Your task to perform on an android device: open app "Flipkart Online Shopping App" Image 0: 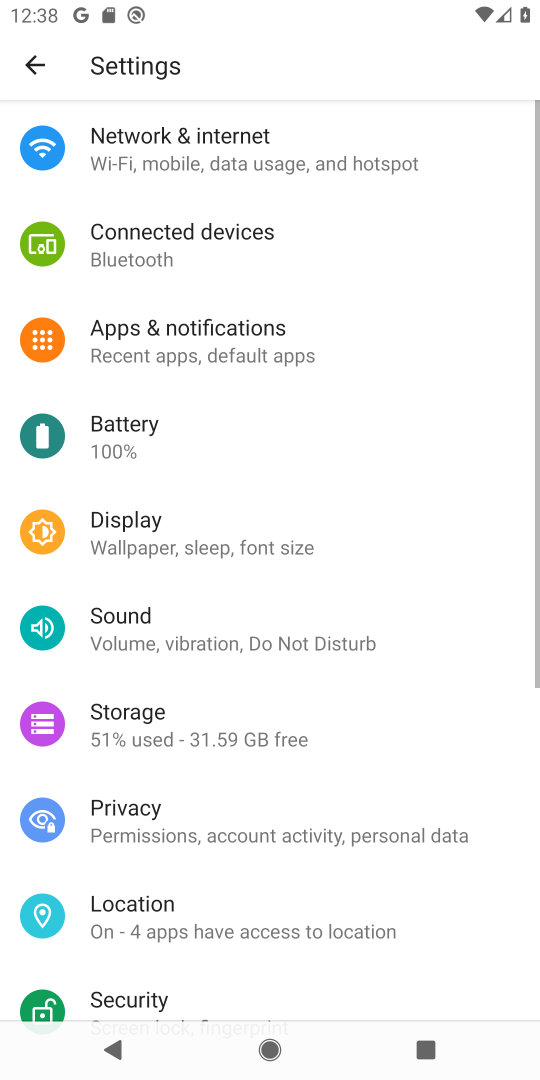
Step 0: press home button
Your task to perform on an android device: open app "Flipkart Online Shopping App" Image 1: 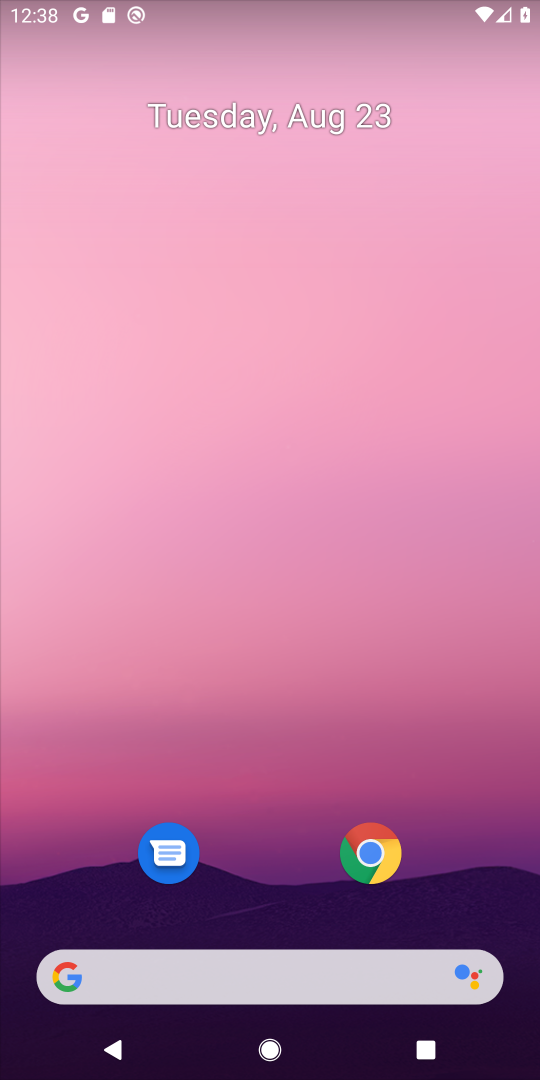
Step 1: drag from (455, 678) to (410, 200)
Your task to perform on an android device: open app "Flipkart Online Shopping App" Image 2: 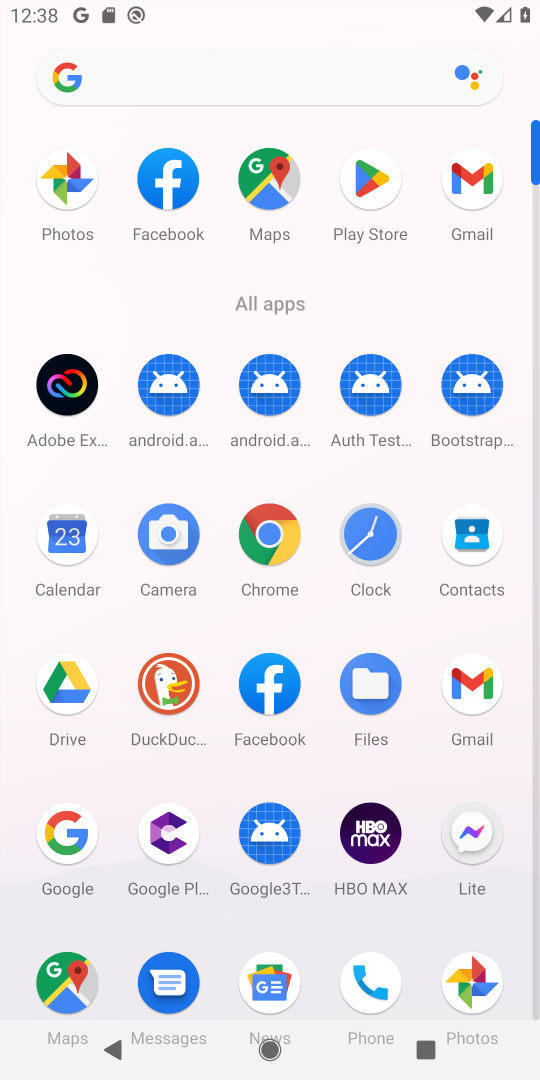
Step 2: drag from (208, 614) to (207, 414)
Your task to perform on an android device: open app "Flipkart Online Shopping App" Image 3: 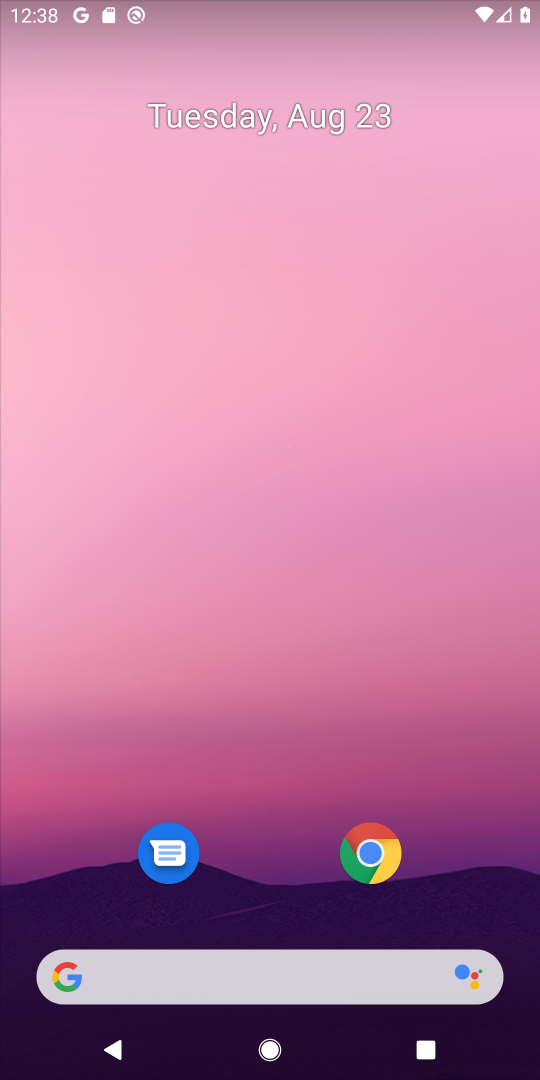
Step 3: drag from (309, 842) to (296, 128)
Your task to perform on an android device: open app "Flipkart Online Shopping App" Image 4: 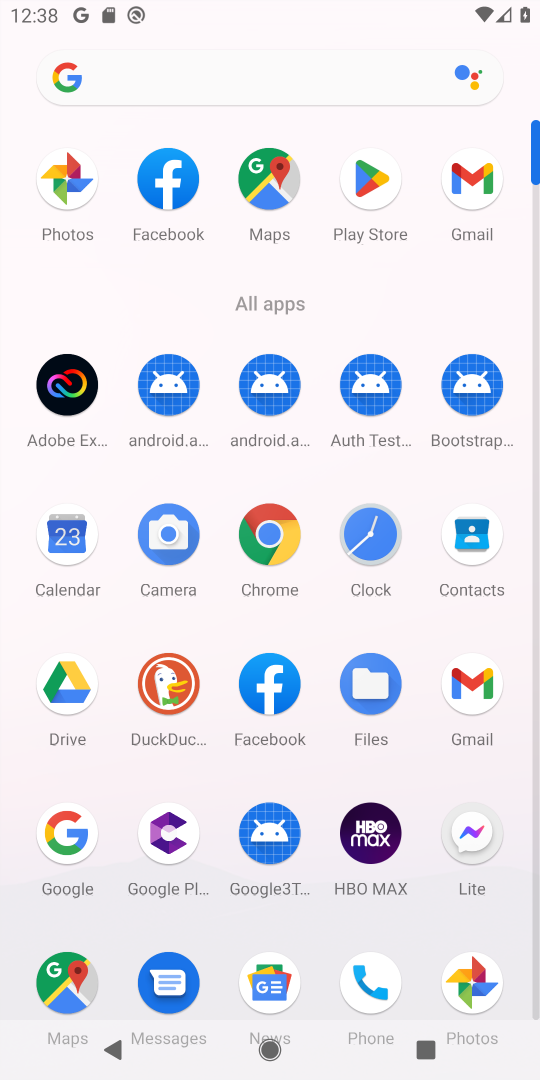
Step 4: drag from (316, 931) to (317, 342)
Your task to perform on an android device: open app "Flipkart Online Shopping App" Image 5: 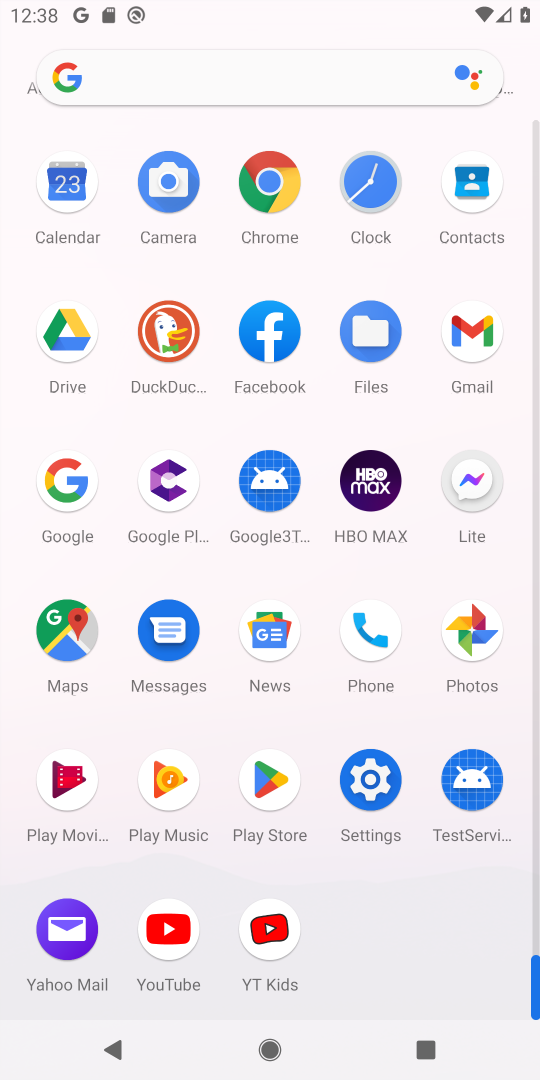
Step 5: click (267, 784)
Your task to perform on an android device: open app "Flipkart Online Shopping App" Image 6: 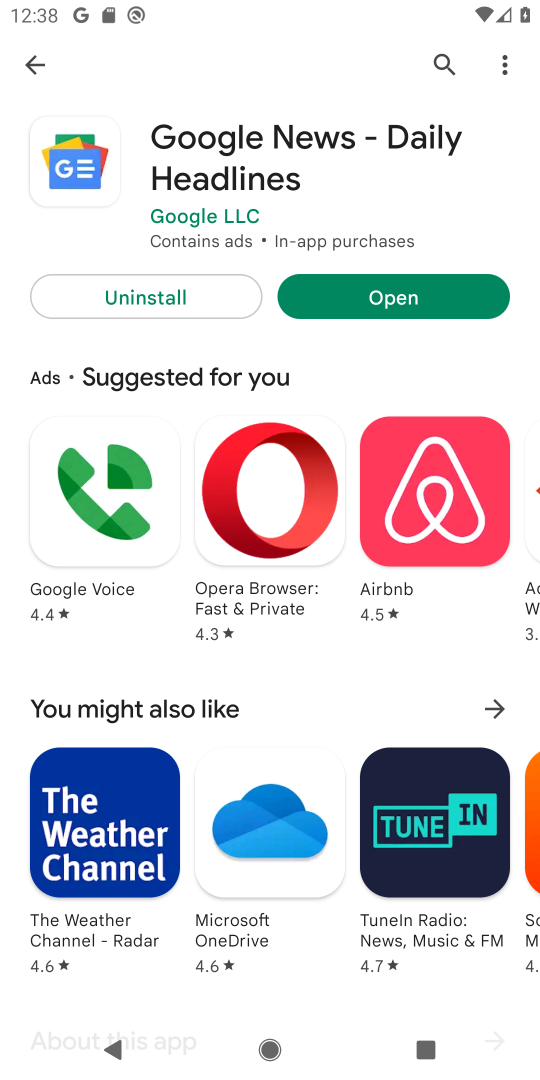
Step 6: click (440, 65)
Your task to perform on an android device: open app "Flipkart Online Shopping App" Image 7: 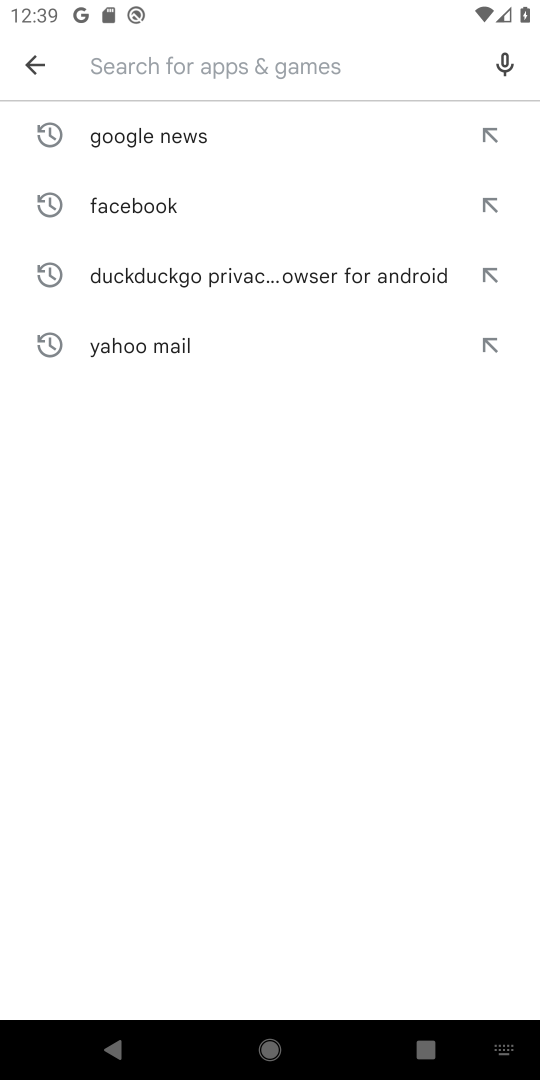
Step 7: type "Flipkart Online Shopping App"
Your task to perform on an android device: open app "Flipkart Online Shopping App" Image 8: 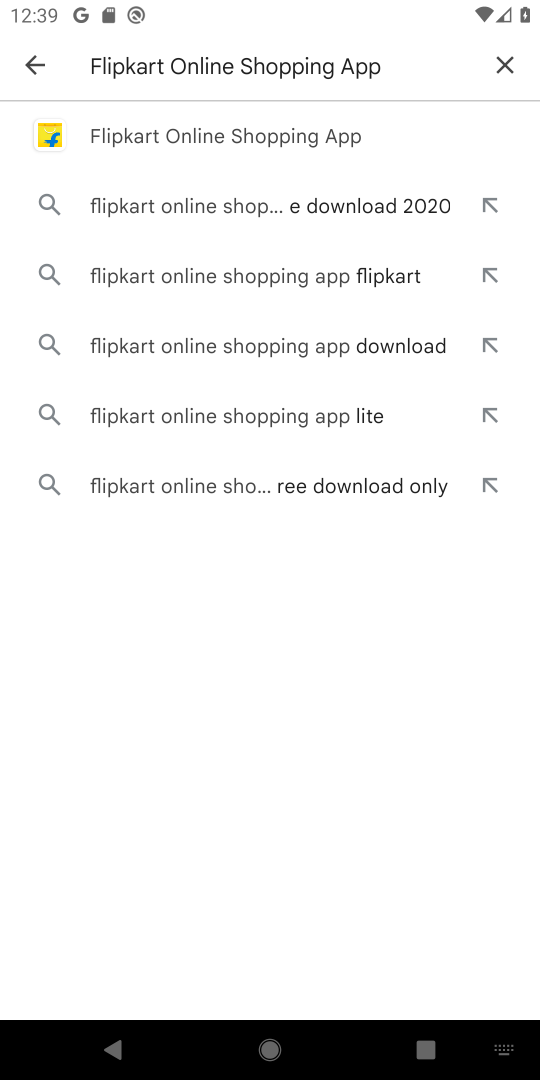
Step 8: click (172, 136)
Your task to perform on an android device: open app "Flipkart Online Shopping App" Image 9: 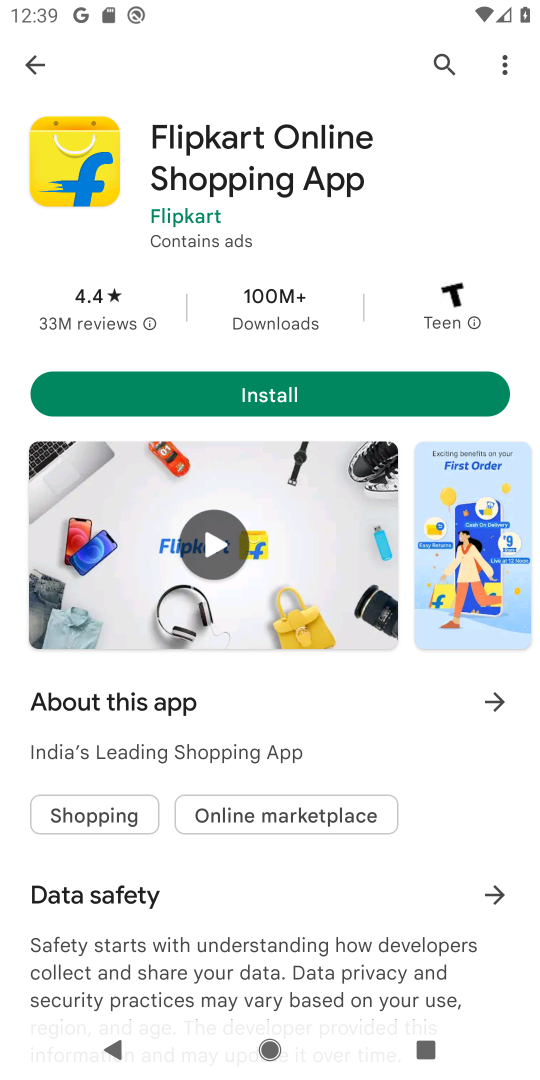
Step 9: task complete